Your task to perform on an android device: Toggle the flashlight Image 0: 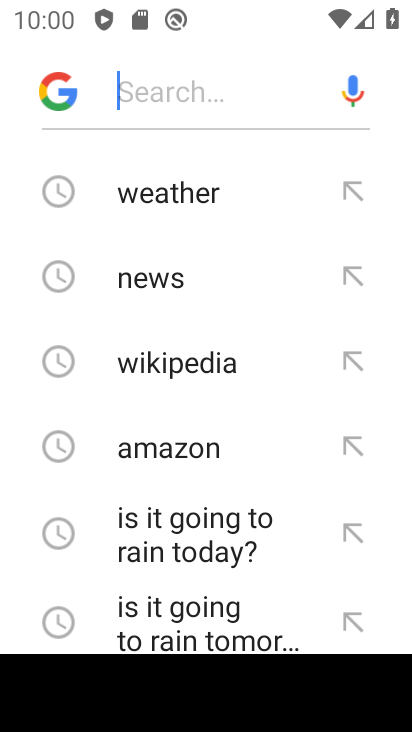
Step 0: press home button
Your task to perform on an android device: Toggle the flashlight Image 1: 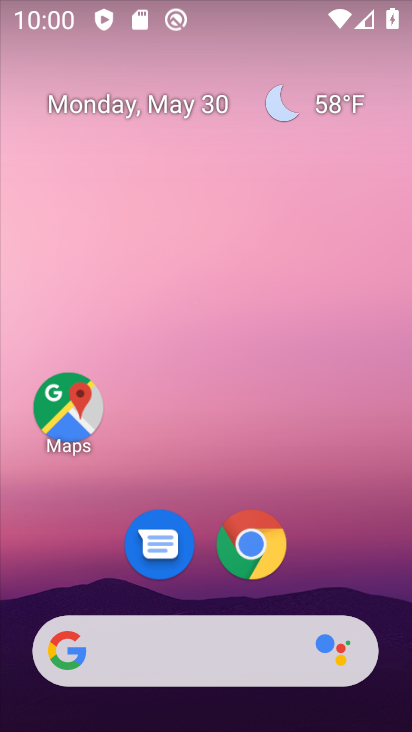
Step 1: task complete